Your task to perform on an android device: Open calendar and show me the first week of next month Image 0: 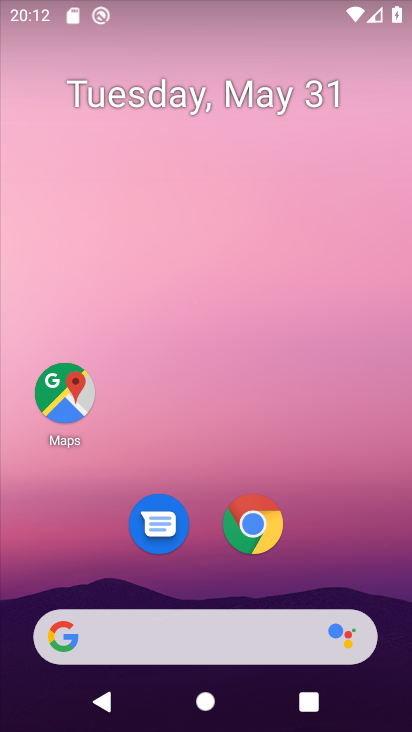
Step 0: drag from (313, 552) to (311, 0)
Your task to perform on an android device: Open calendar and show me the first week of next month Image 1: 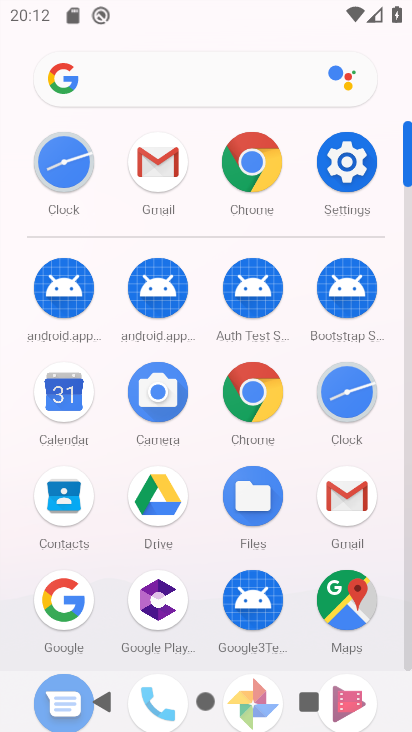
Step 1: click (46, 381)
Your task to perform on an android device: Open calendar and show me the first week of next month Image 2: 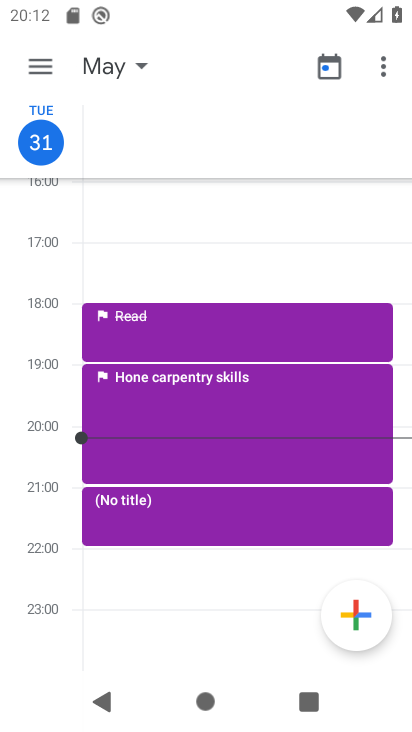
Step 2: click (44, 69)
Your task to perform on an android device: Open calendar and show me the first week of next month Image 3: 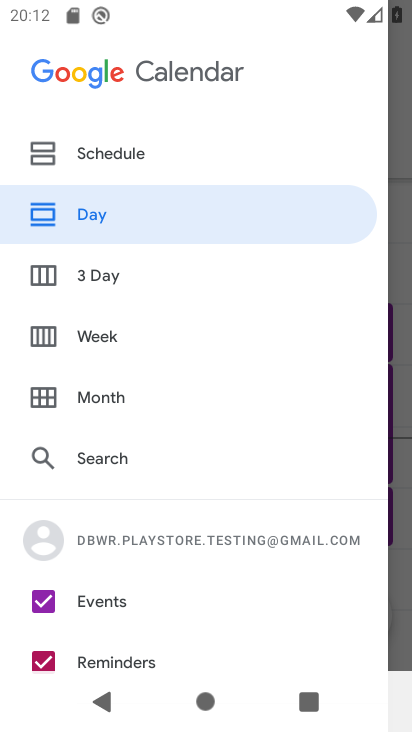
Step 3: click (38, 327)
Your task to perform on an android device: Open calendar and show me the first week of next month Image 4: 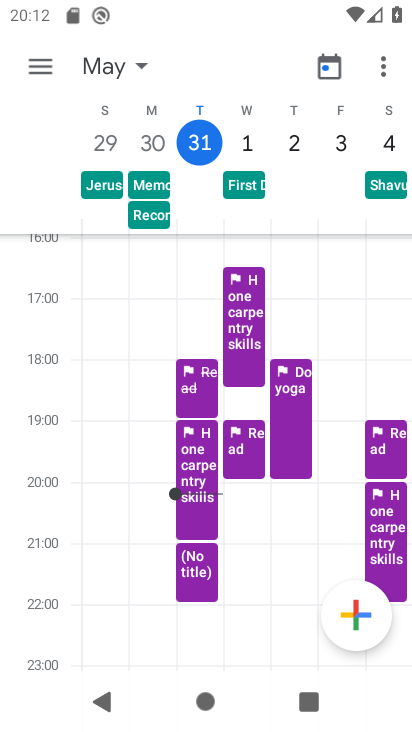
Step 4: task complete